Your task to perform on an android device: Search for Mexican restaurants on Maps Image 0: 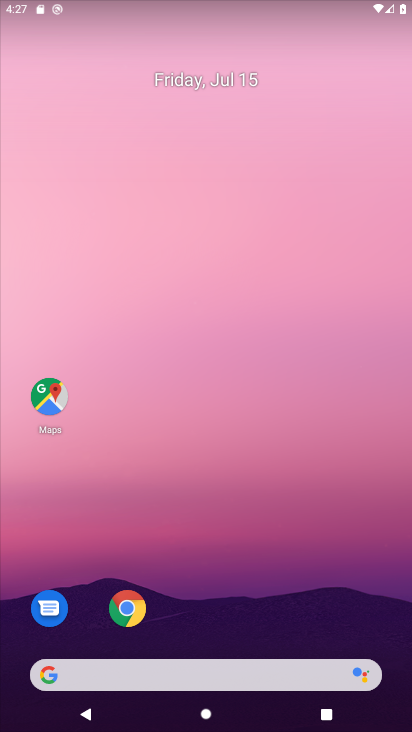
Step 0: drag from (199, 237) to (184, 148)
Your task to perform on an android device: Search for Mexican restaurants on Maps Image 1: 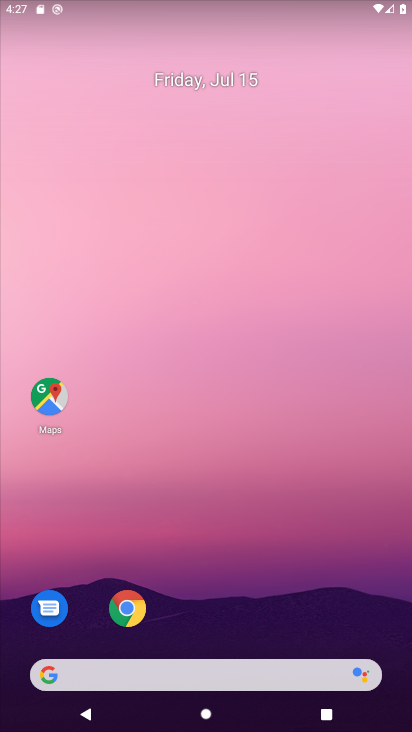
Step 1: drag from (256, 679) to (190, 138)
Your task to perform on an android device: Search for Mexican restaurants on Maps Image 2: 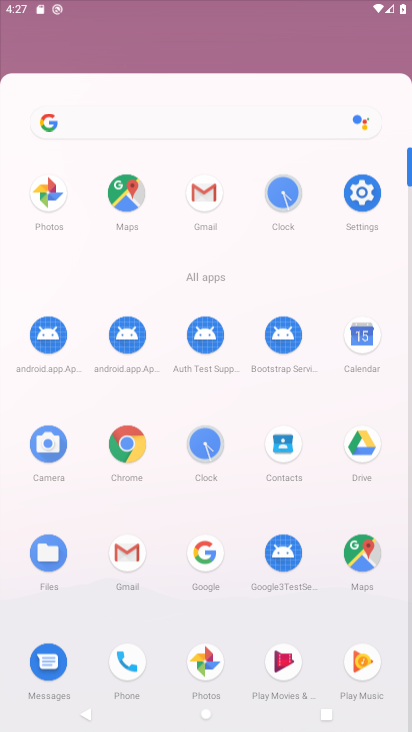
Step 2: drag from (222, 559) to (182, 243)
Your task to perform on an android device: Search for Mexican restaurants on Maps Image 3: 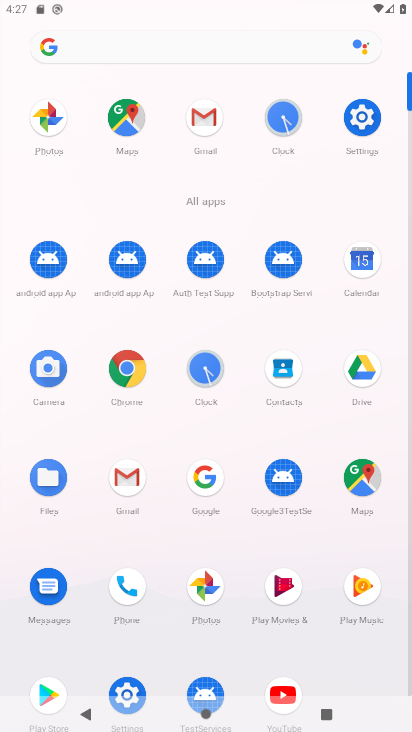
Step 3: click (355, 476)
Your task to perform on an android device: Search for Mexican restaurants on Maps Image 4: 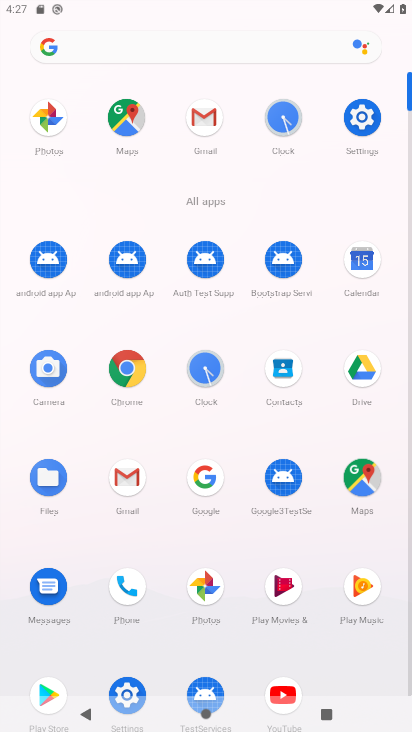
Step 4: click (367, 486)
Your task to perform on an android device: Search for Mexican restaurants on Maps Image 5: 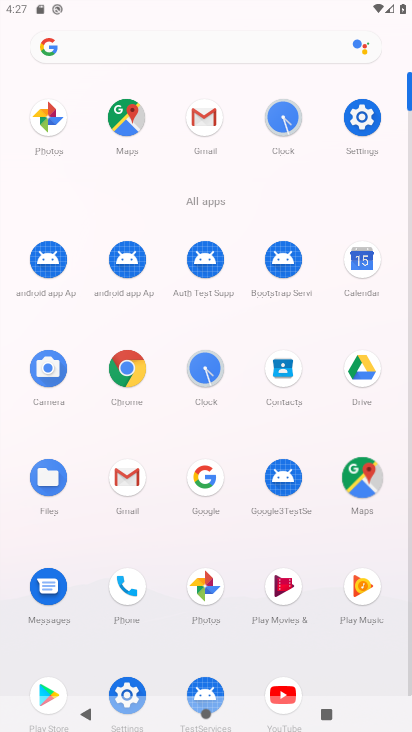
Step 5: click (367, 486)
Your task to perform on an android device: Search for Mexican restaurants on Maps Image 6: 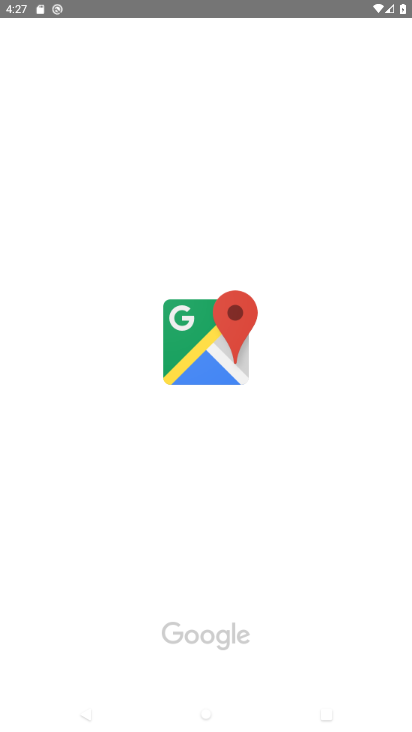
Step 6: click (359, 475)
Your task to perform on an android device: Search for Mexican restaurants on Maps Image 7: 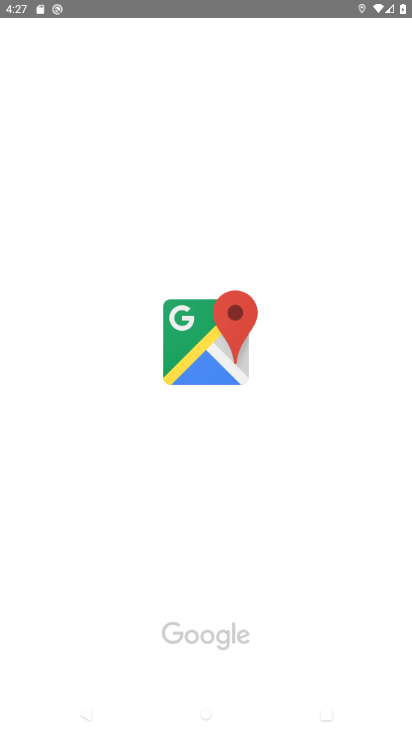
Step 7: click (208, 356)
Your task to perform on an android device: Search for Mexican restaurants on Maps Image 8: 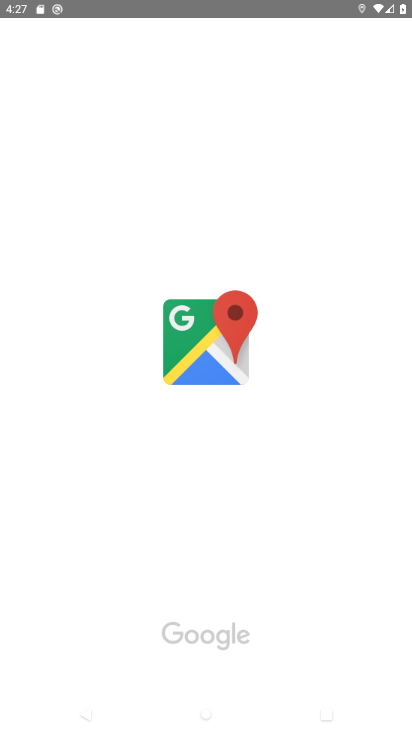
Step 8: click (209, 352)
Your task to perform on an android device: Search for Mexican restaurants on Maps Image 9: 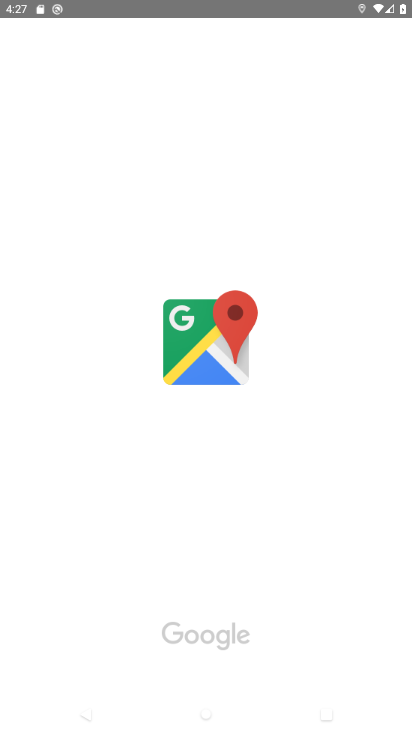
Step 9: click (209, 352)
Your task to perform on an android device: Search for Mexican restaurants on Maps Image 10: 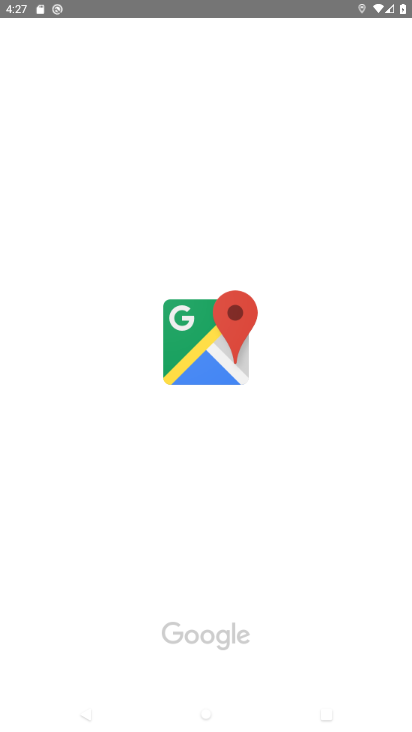
Step 10: click (210, 352)
Your task to perform on an android device: Search for Mexican restaurants on Maps Image 11: 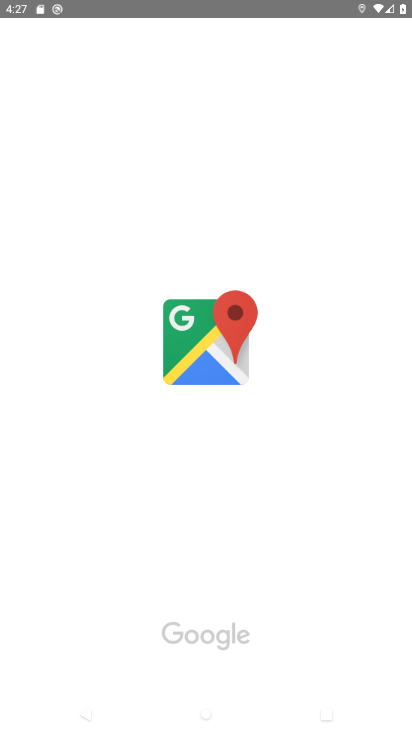
Step 11: click (213, 351)
Your task to perform on an android device: Search for Mexican restaurants on Maps Image 12: 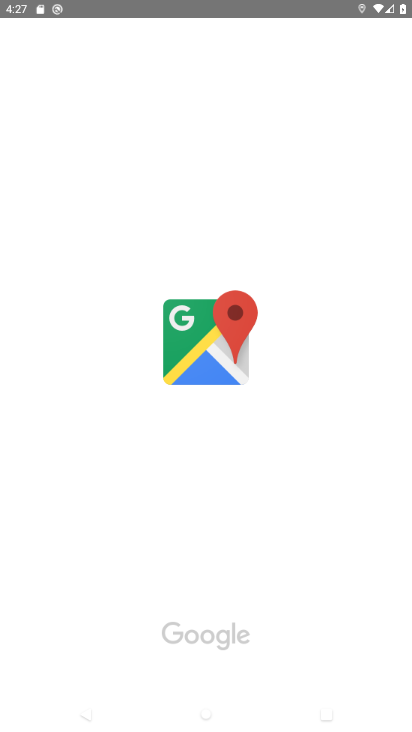
Step 12: click (214, 337)
Your task to perform on an android device: Search for Mexican restaurants on Maps Image 13: 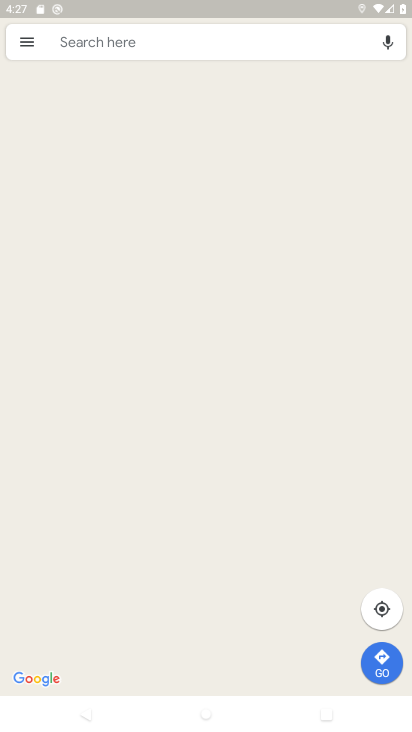
Step 13: click (64, 36)
Your task to perform on an android device: Search for Mexican restaurants on Maps Image 14: 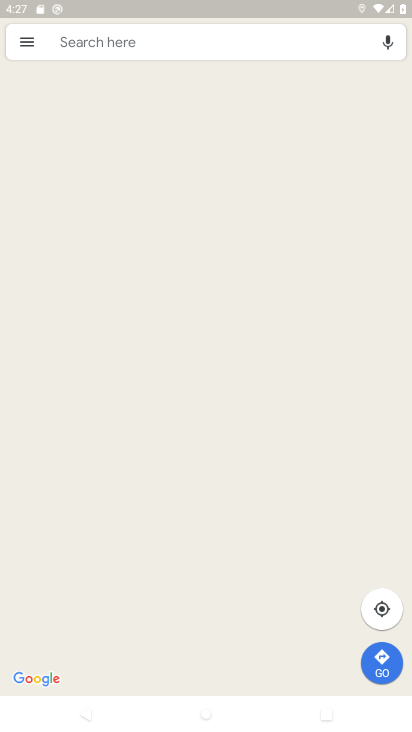
Step 14: click (64, 37)
Your task to perform on an android device: Search for Mexican restaurants on Maps Image 15: 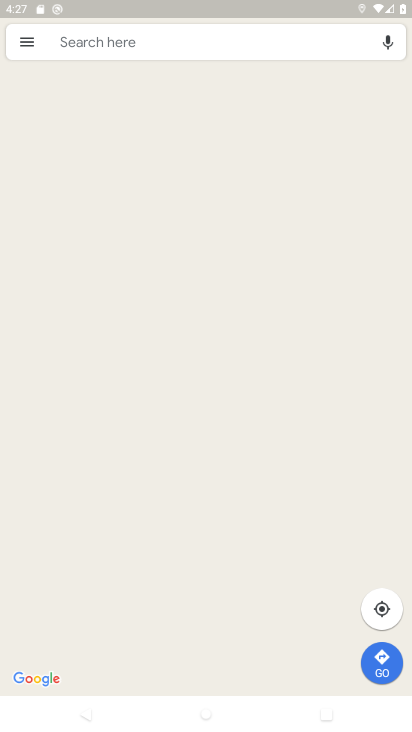
Step 15: click (65, 41)
Your task to perform on an android device: Search for Mexican restaurants on Maps Image 16: 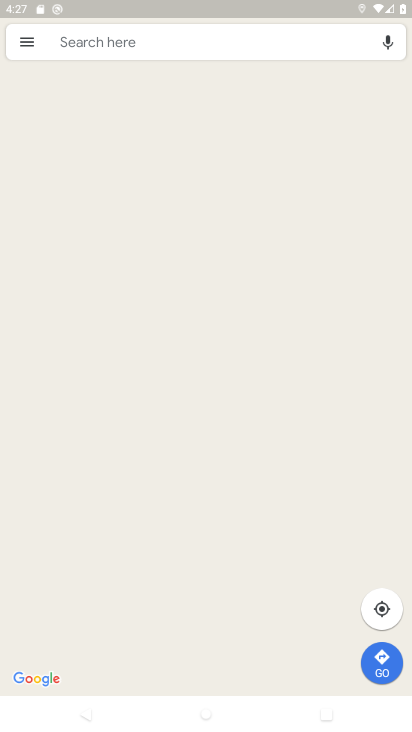
Step 16: click (72, 47)
Your task to perform on an android device: Search for Mexican restaurants on Maps Image 17: 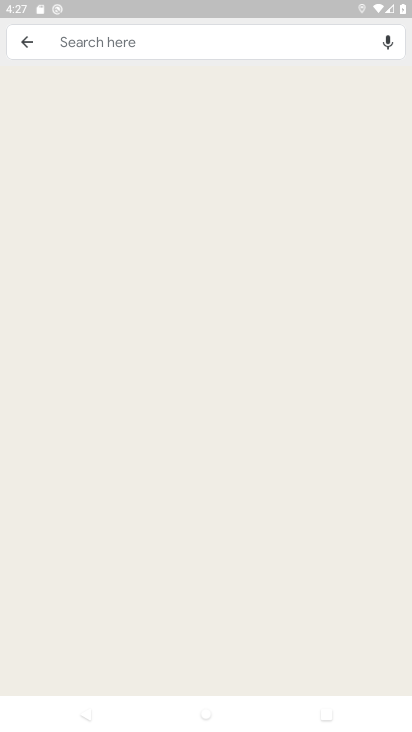
Step 17: click (72, 47)
Your task to perform on an android device: Search for Mexican restaurants on Maps Image 18: 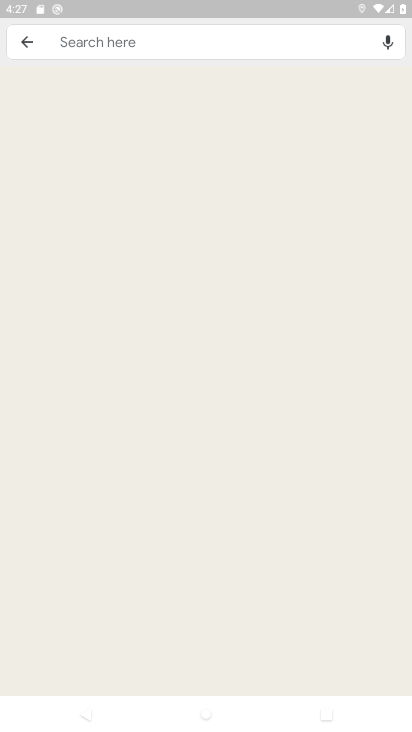
Step 18: click (72, 46)
Your task to perform on an android device: Search for Mexican restaurants on Maps Image 19: 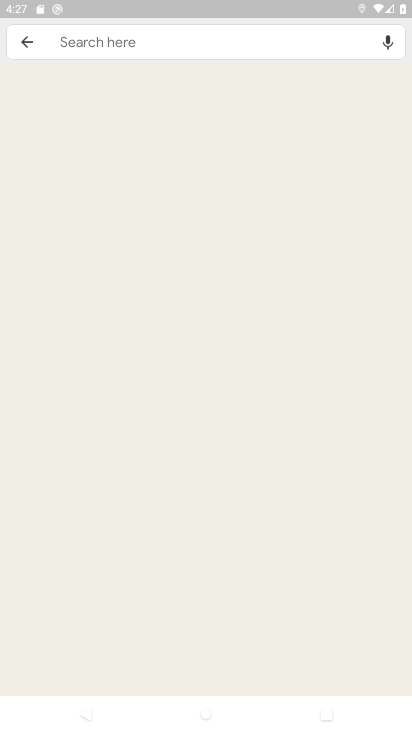
Step 19: click (73, 46)
Your task to perform on an android device: Search for Mexican restaurants on Maps Image 20: 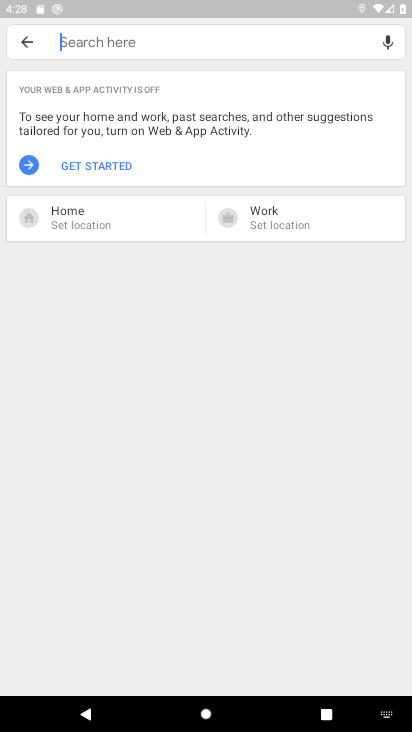
Step 20: type "mexican restaurants"
Your task to perform on an android device: Search for Mexican restaurants on Maps Image 21: 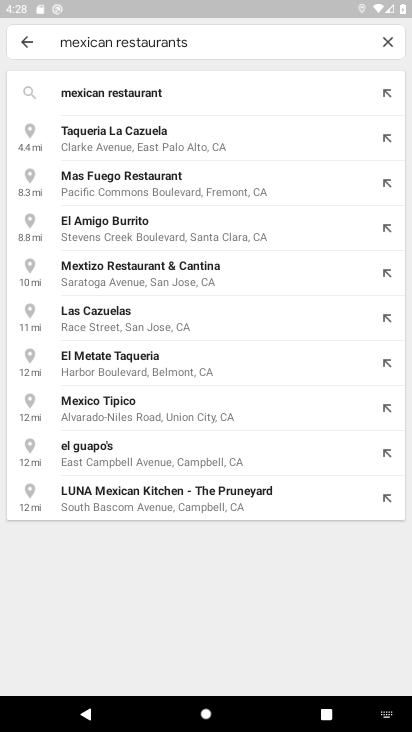
Step 21: click (124, 85)
Your task to perform on an android device: Search for Mexican restaurants on Maps Image 22: 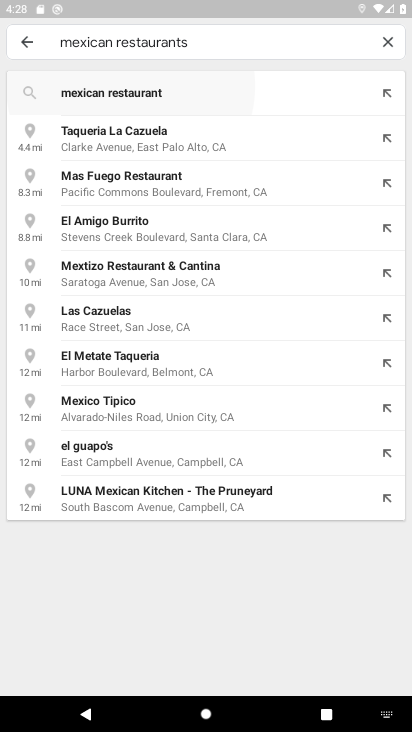
Step 22: click (124, 85)
Your task to perform on an android device: Search for Mexican restaurants on Maps Image 23: 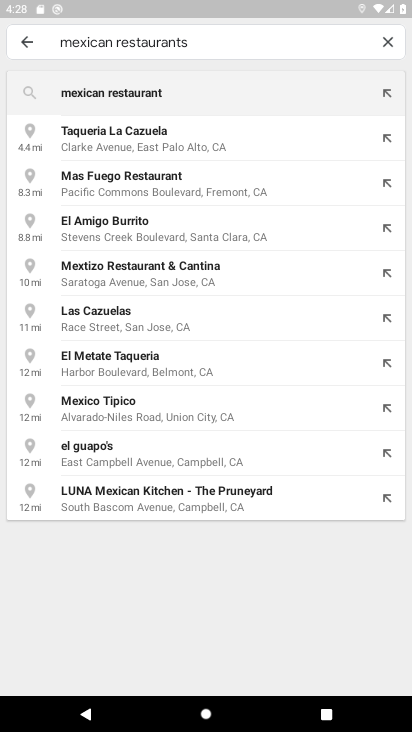
Step 23: click (124, 85)
Your task to perform on an android device: Search for Mexican restaurants on Maps Image 24: 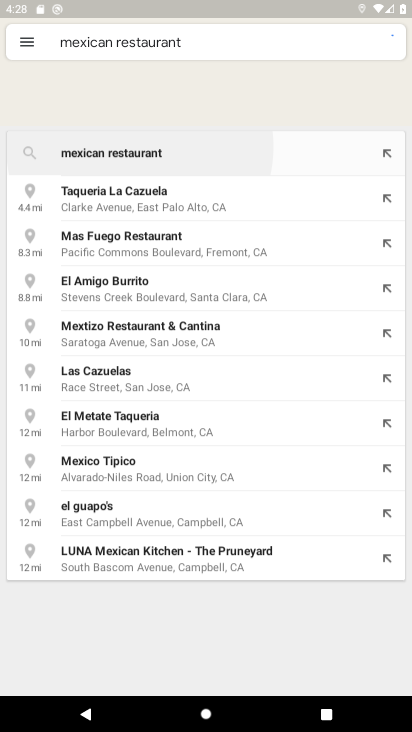
Step 24: click (125, 87)
Your task to perform on an android device: Search for Mexican restaurants on Maps Image 25: 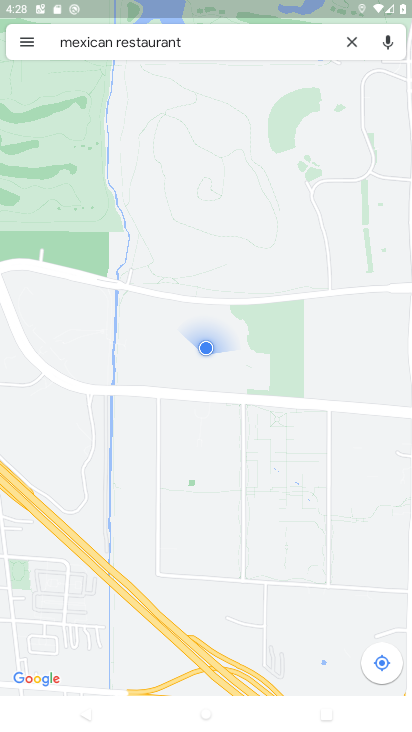
Step 25: task complete